Your task to perform on an android device: Turn off the flashlight Image 0: 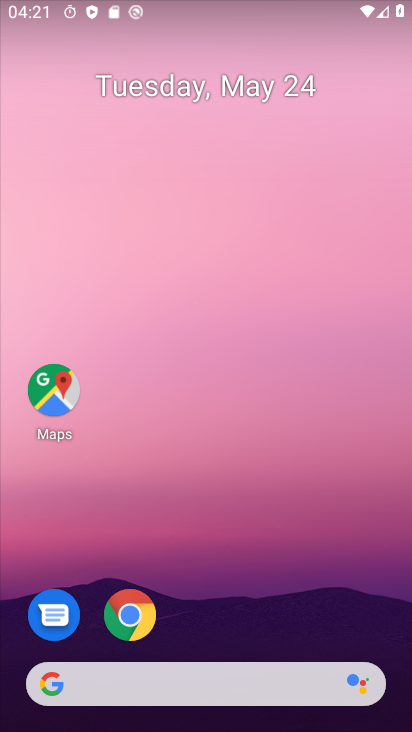
Step 0: drag from (229, 575) to (283, 101)
Your task to perform on an android device: Turn off the flashlight Image 1: 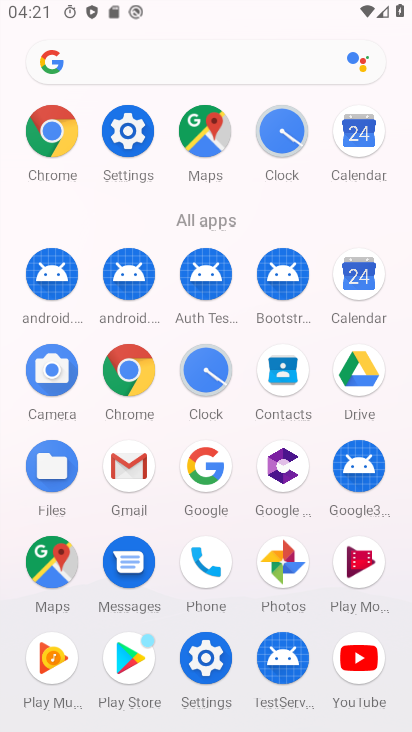
Step 1: click (127, 128)
Your task to perform on an android device: Turn off the flashlight Image 2: 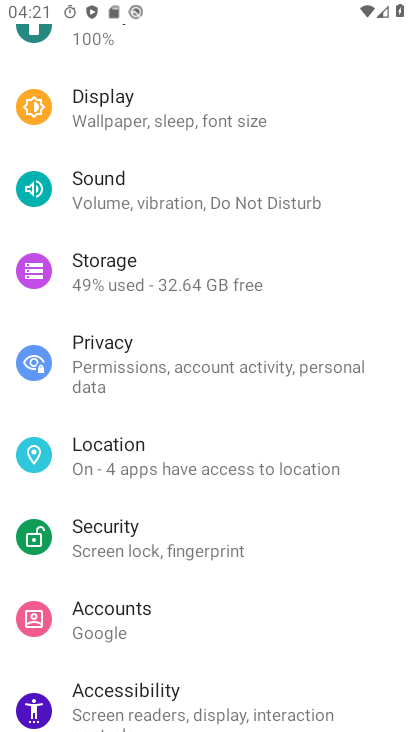
Step 2: drag from (135, 172) to (151, 606)
Your task to perform on an android device: Turn off the flashlight Image 3: 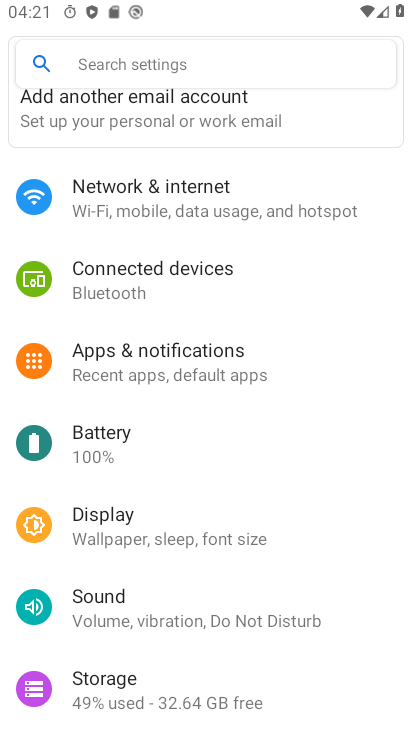
Step 3: click (134, 58)
Your task to perform on an android device: Turn off the flashlight Image 4: 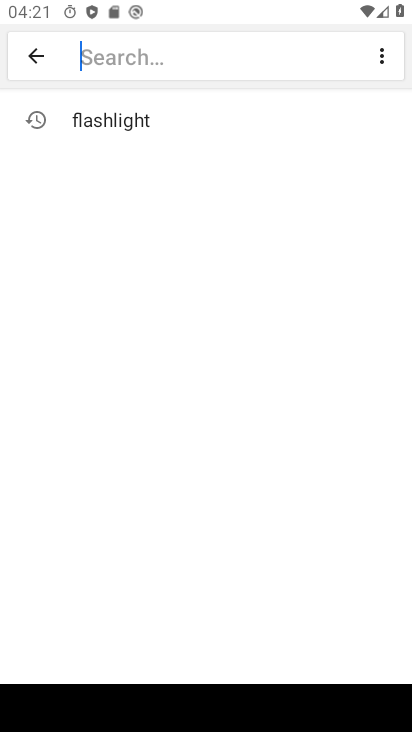
Step 4: click (110, 110)
Your task to perform on an android device: Turn off the flashlight Image 5: 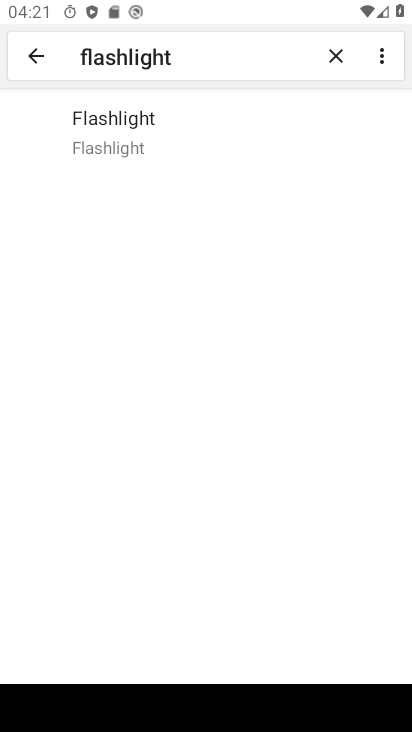
Step 5: task complete